Your task to perform on an android device: Search for Mexican restaurants on Maps Image 0: 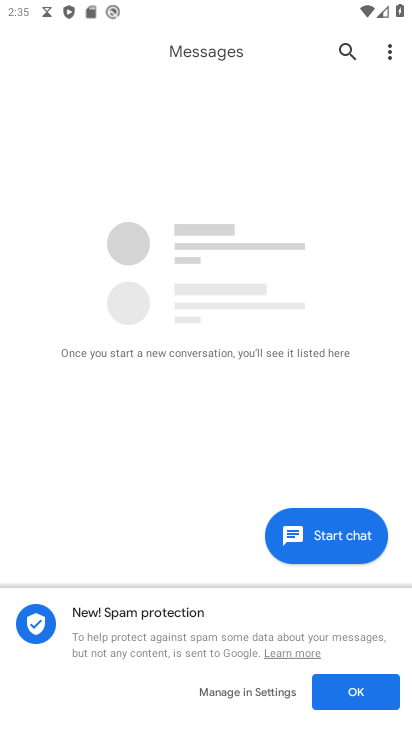
Step 0: press home button
Your task to perform on an android device: Search for Mexican restaurants on Maps Image 1: 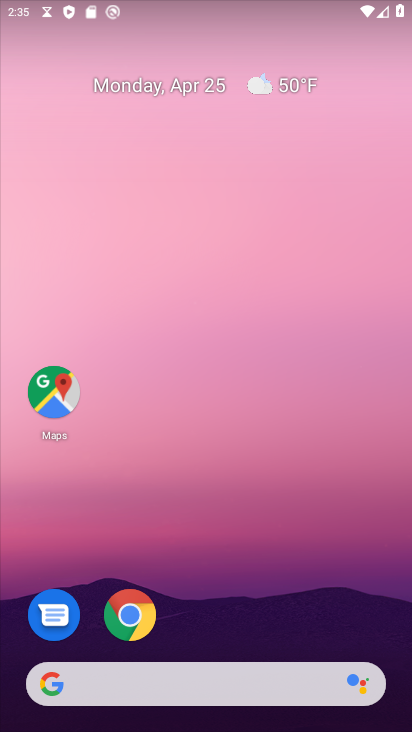
Step 1: drag from (211, 710) to (188, 223)
Your task to perform on an android device: Search for Mexican restaurants on Maps Image 2: 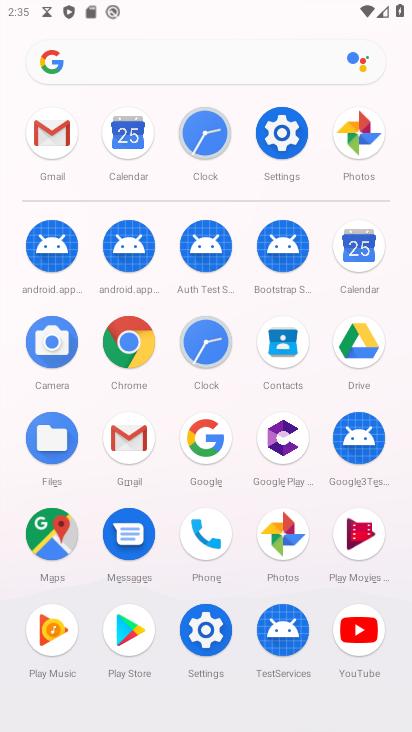
Step 2: click (49, 533)
Your task to perform on an android device: Search for Mexican restaurants on Maps Image 3: 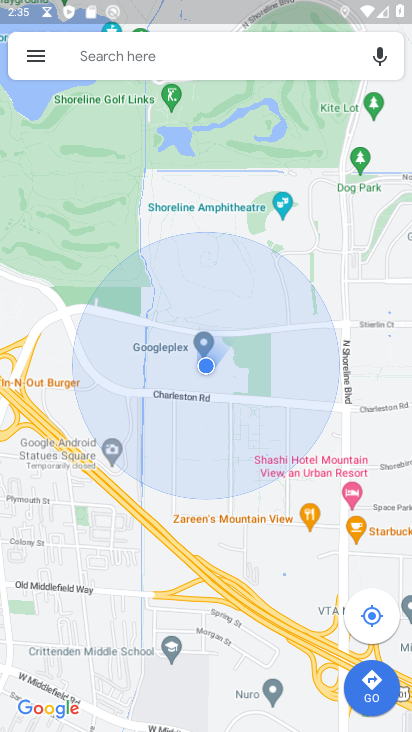
Step 3: click (209, 52)
Your task to perform on an android device: Search for Mexican restaurants on Maps Image 4: 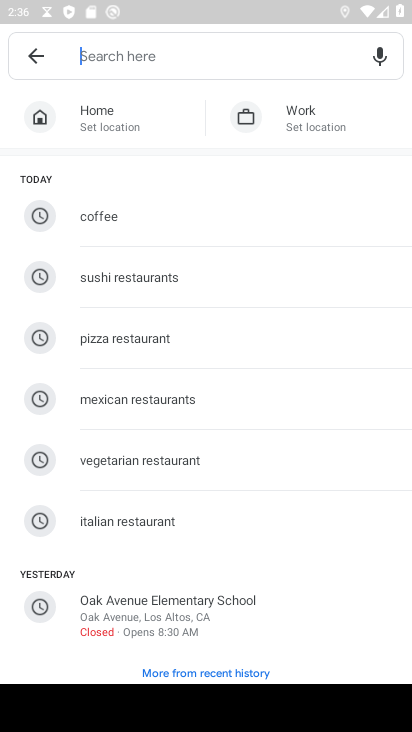
Step 4: type "Mexican restaurants"
Your task to perform on an android device: Search for Mexican restaurants on Maps Image 5: 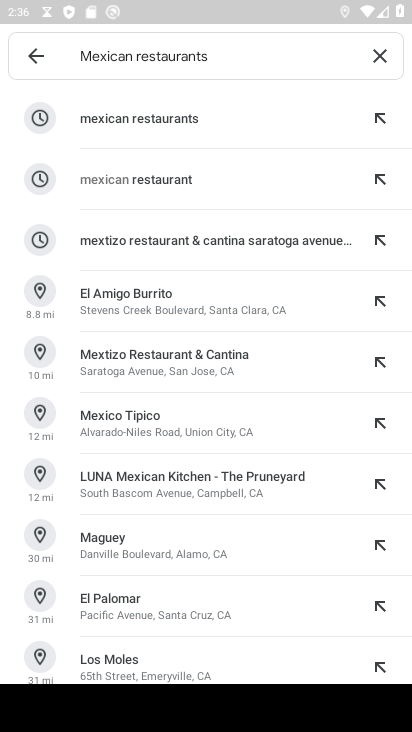
Step 5: click (120, 115)
Your task to perform on an android device: Search for Mexican restaurants on Maps Image 6: 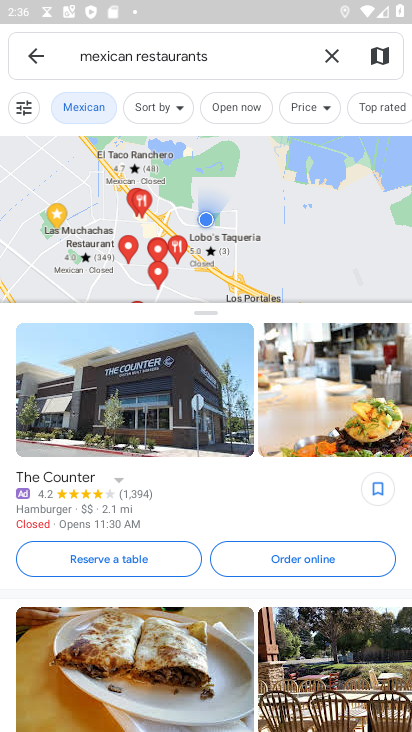
Step 6: task complete